Your task to perform on an android device: Show me popular videos on Youtube Image 0: 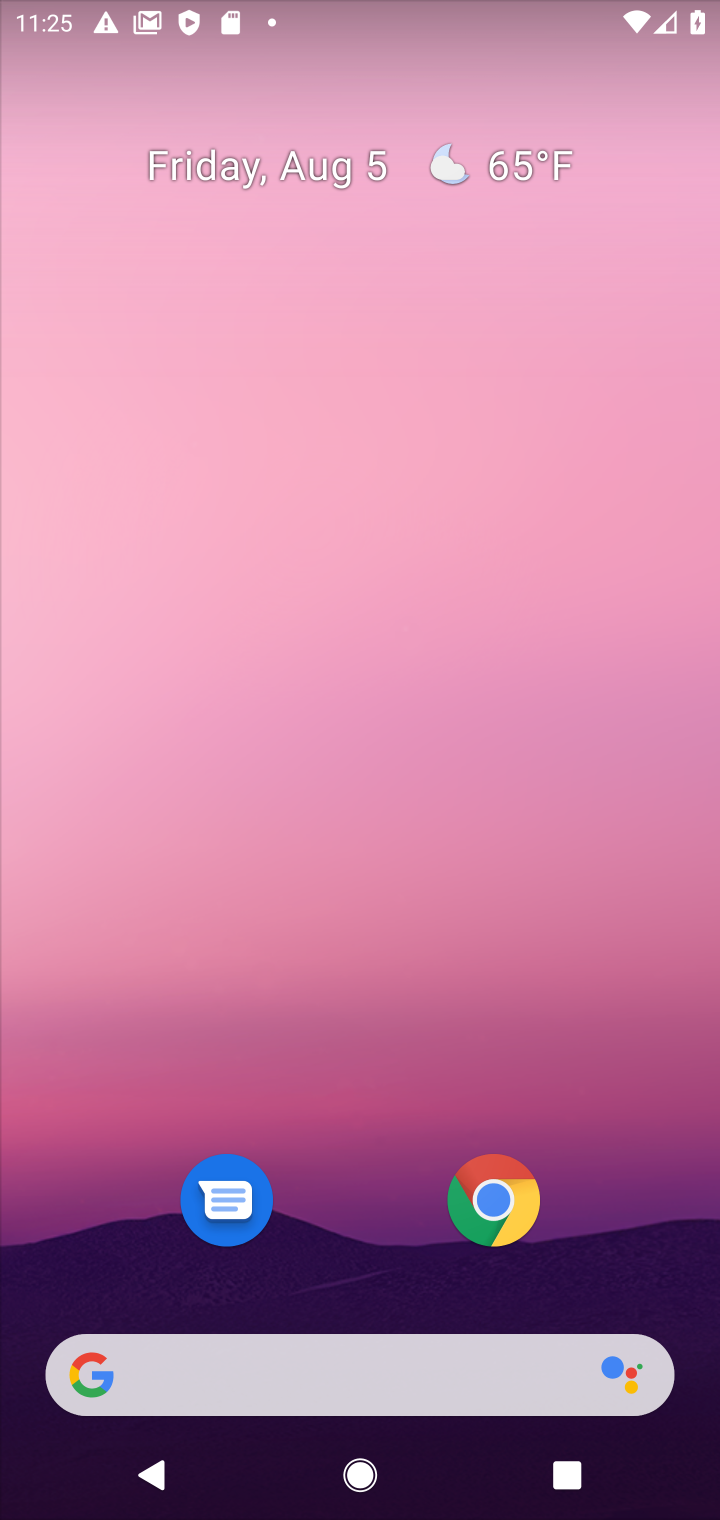
Step 0: drag from (652, 1260) to (608, 149)
Your task to perform on an android device: Show me popular videos on Youtube Image 1: 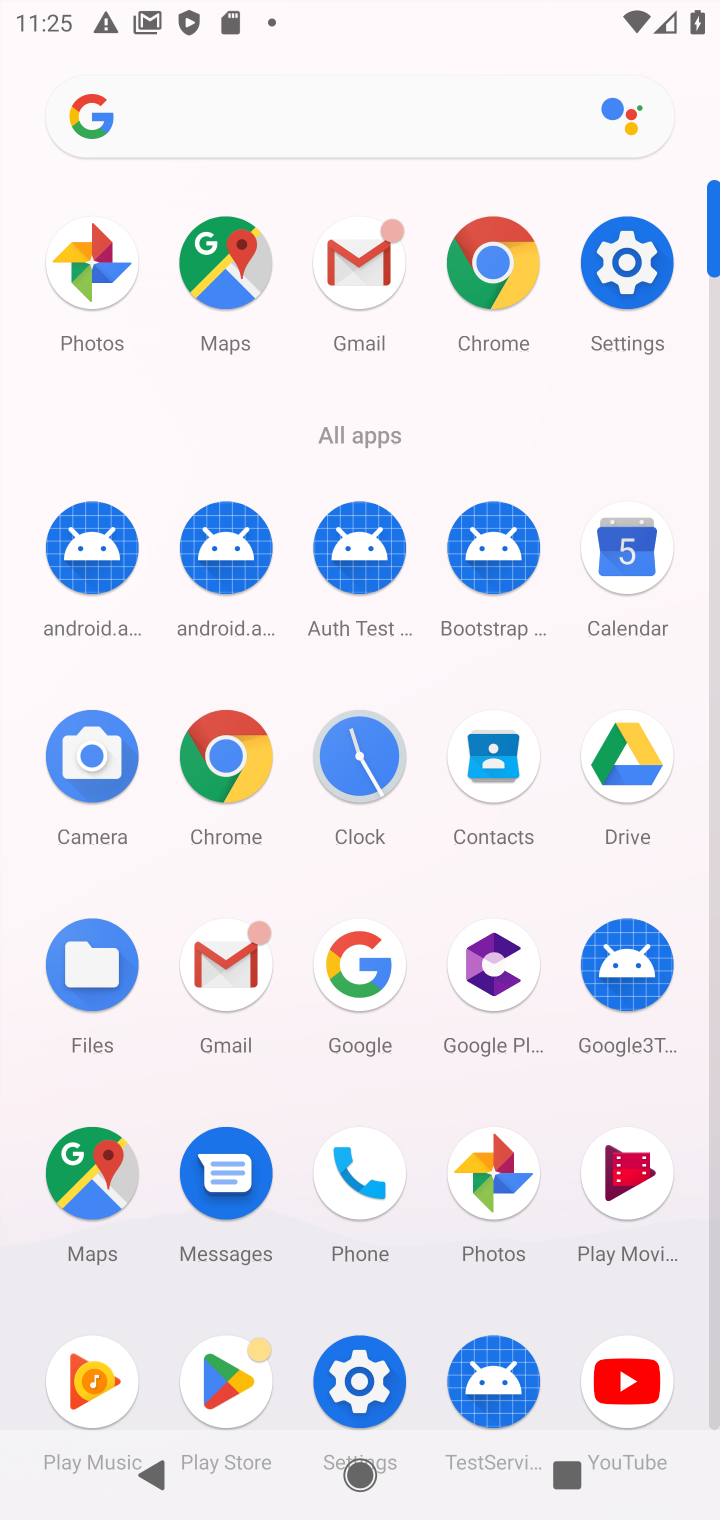
Step 1: click (626, 1390)
Your task to perform on an android device: Show me popular videos on Youtube Image 2: 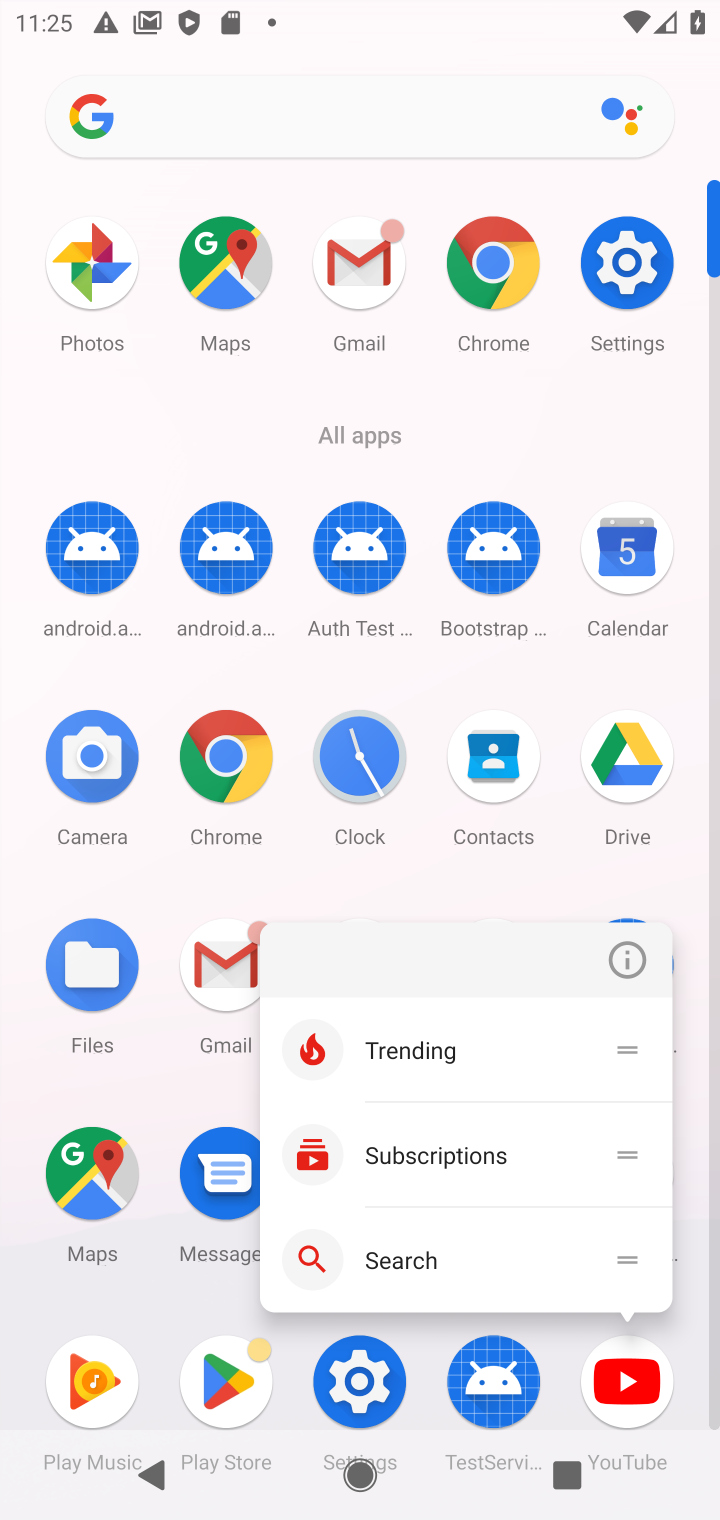
Step 2: click (624, 1381)
Your task to perform on an android device: Show me popular videos on Youtube Image 3: 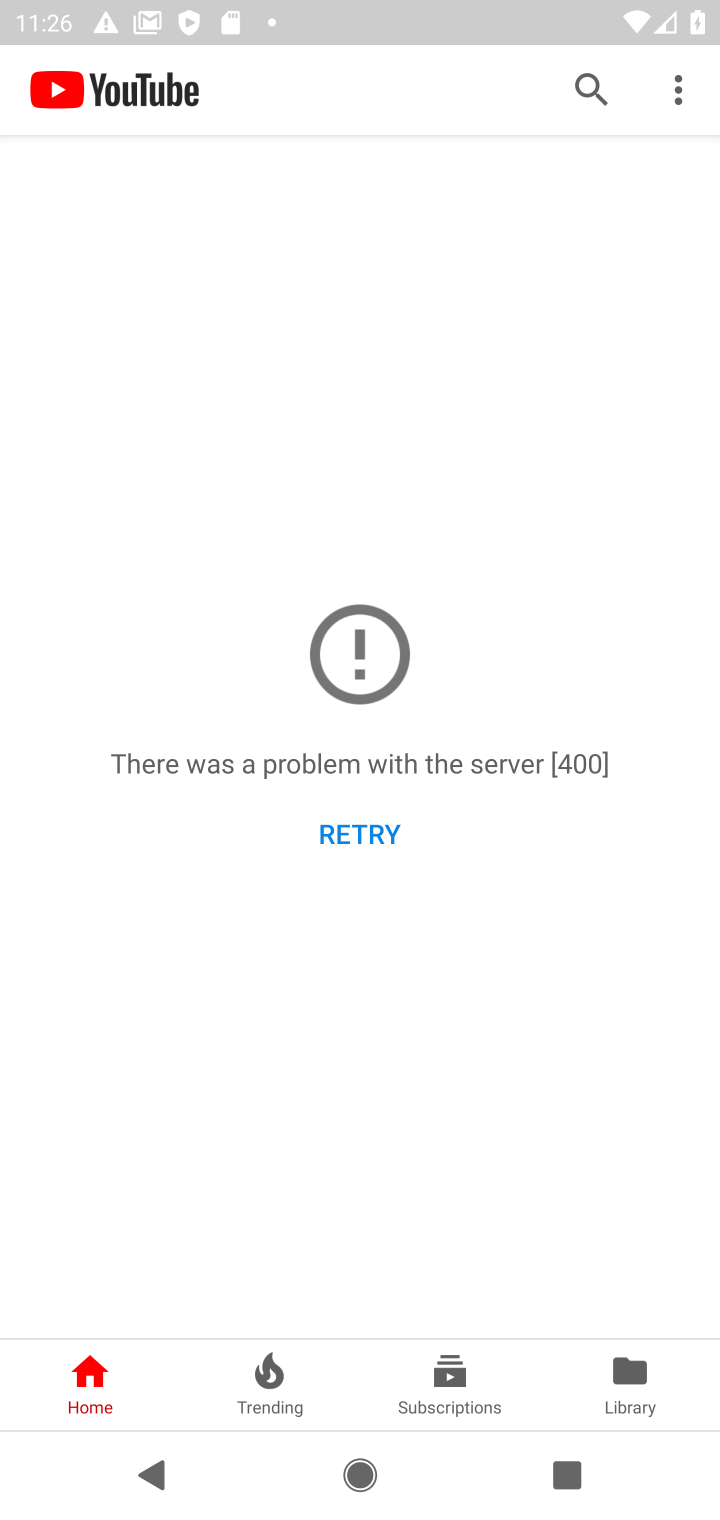
Step 3: click (369, 834)
Your task to perform on an android device: Show me popular videos on Youtube Image 4: 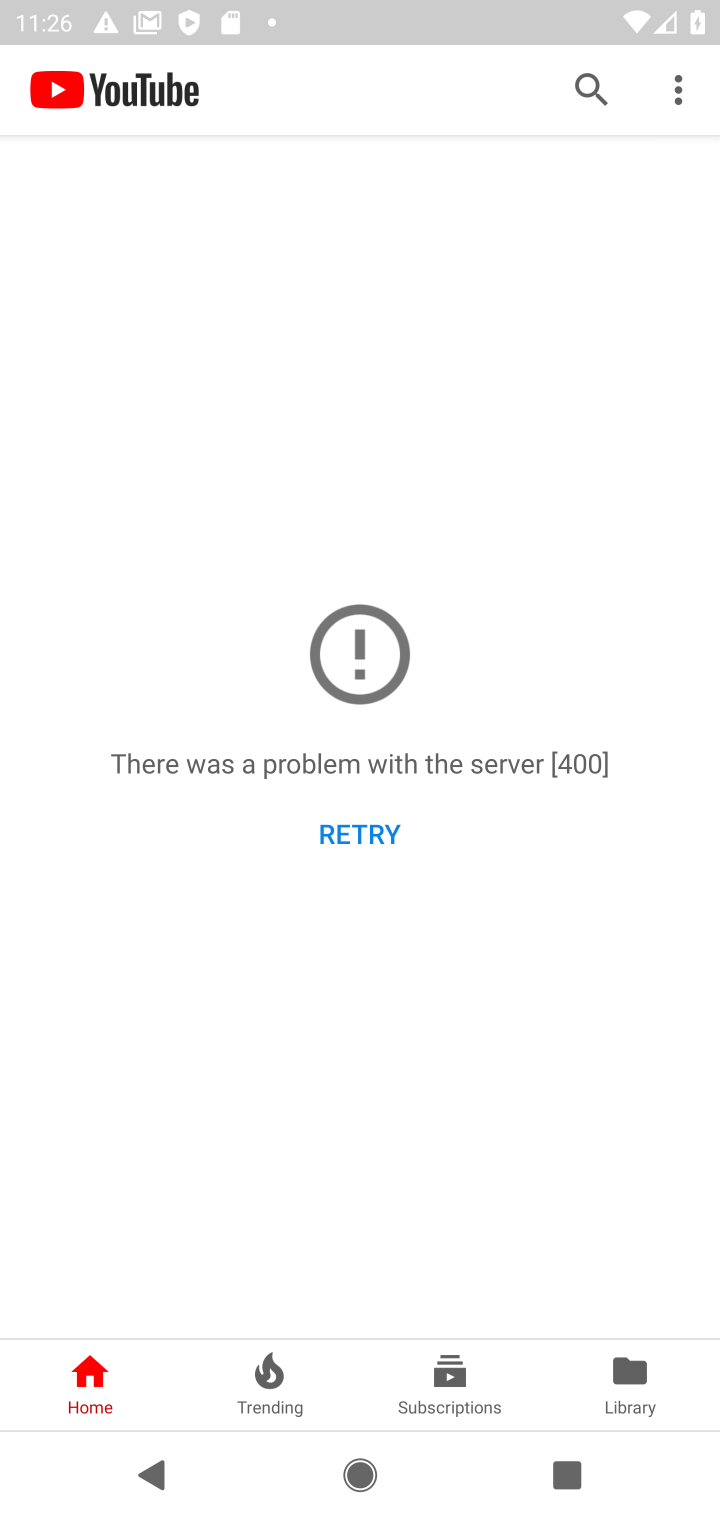
Step 4: click (291, 1361)
Your task to perform on an android device: Show me popular videos on Youtube Image 5: 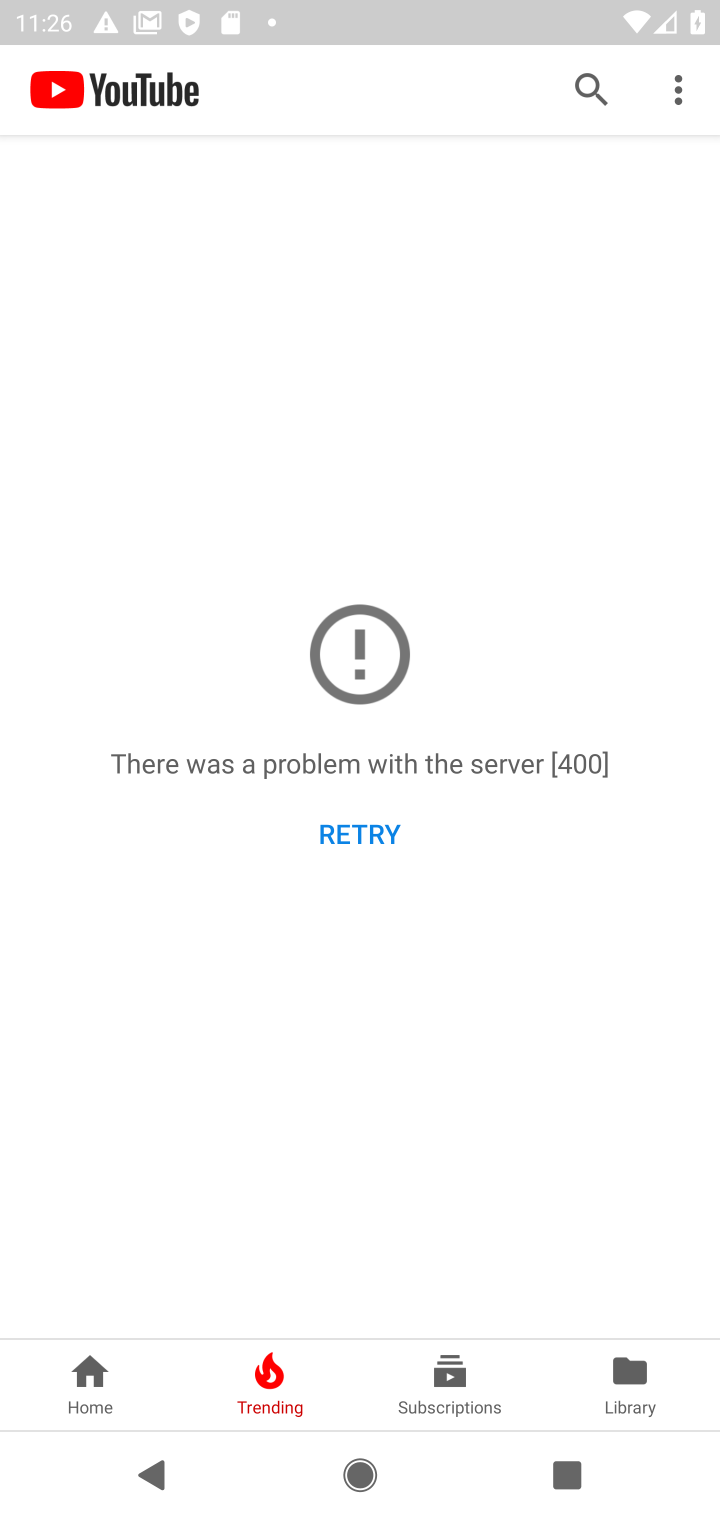
Step 5: task complete